Your task to perform on an android device: Open maps Image 0: 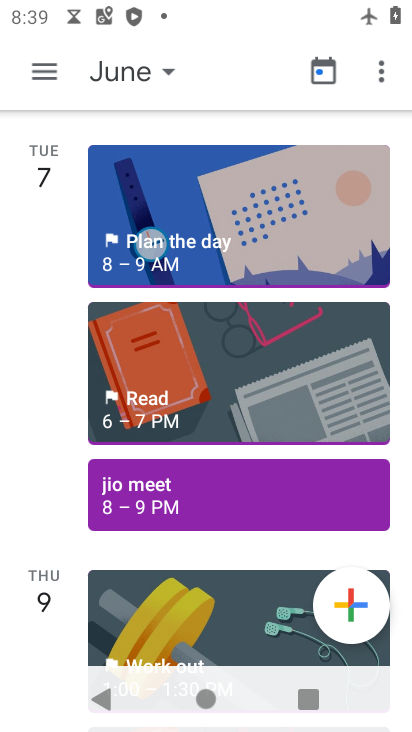
Step 0: press home button
Your task to perform on an android device: Open maps Image 1: 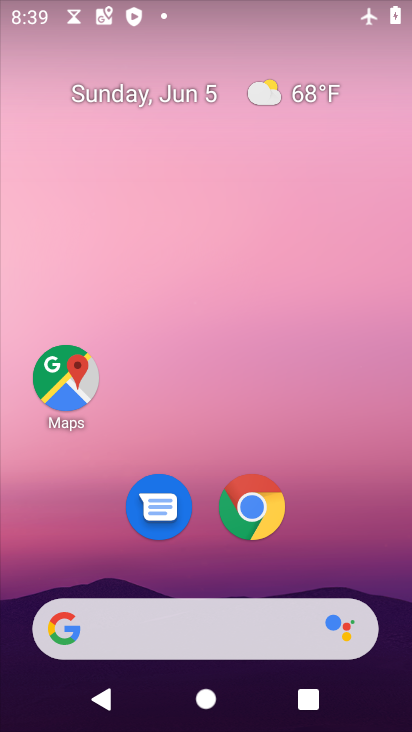
Step 1: click (67, 390)
Your task to perform on an android device: Open maps Image 2: 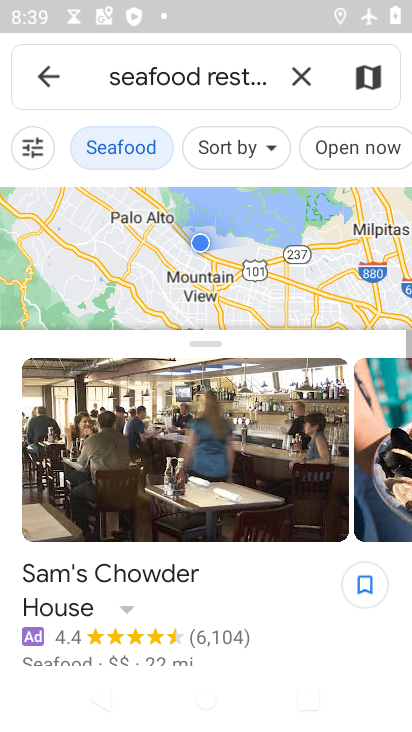
Step 2: click (46, 69)
Your task to perform on an android device: Open maps Image 3: 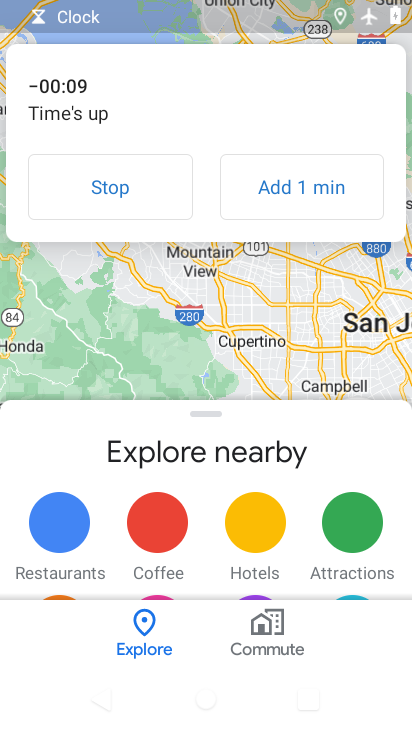
Step 3: task complete